Your task to perform on an android device: delete a single message in the gmail app Image 0: 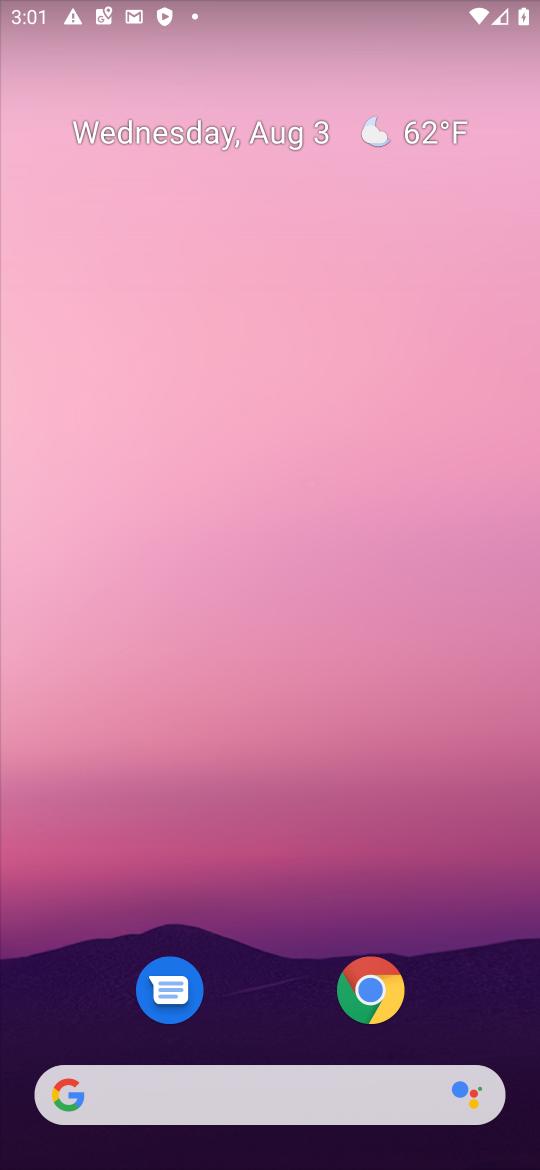
Step 0: drag from (234, 899) to (434, 3)
Your task to perform on an android device: delete a single message in the gmail app Image 1: 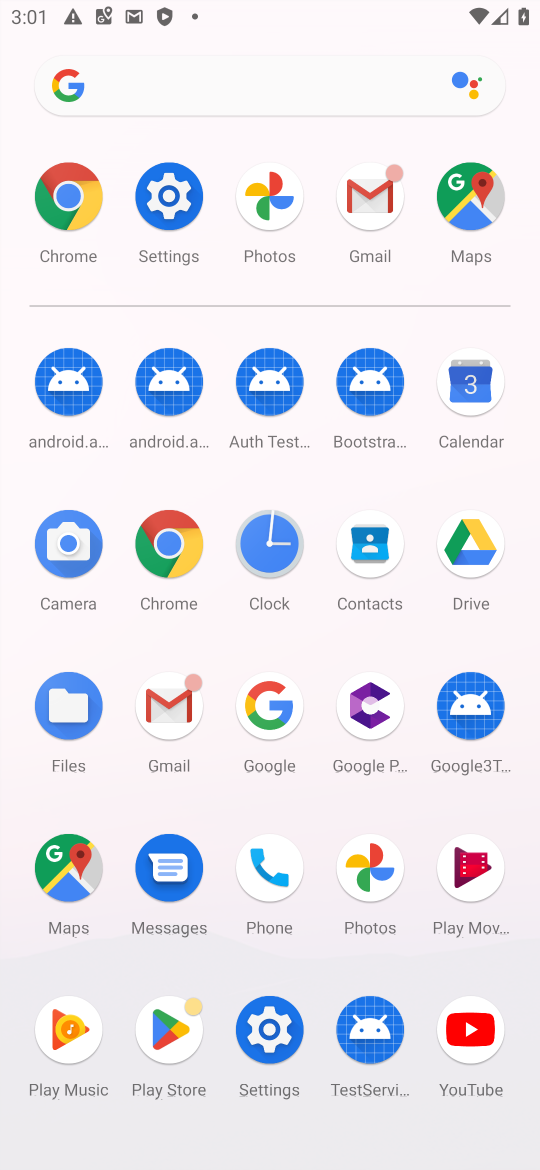
Step 1: click (176, 678)
Your task to perform on an android device: delete a single message in the gmail app Image 2: 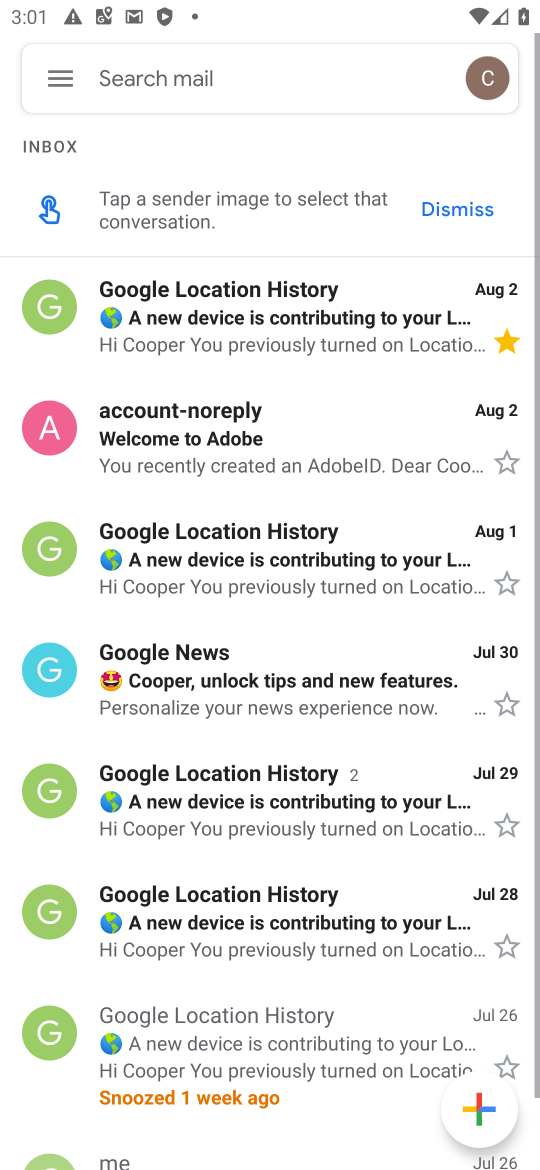
Step 2: click (208, 296)
Your task to perform on an android device: delete a single message in the gmail app Image 3: 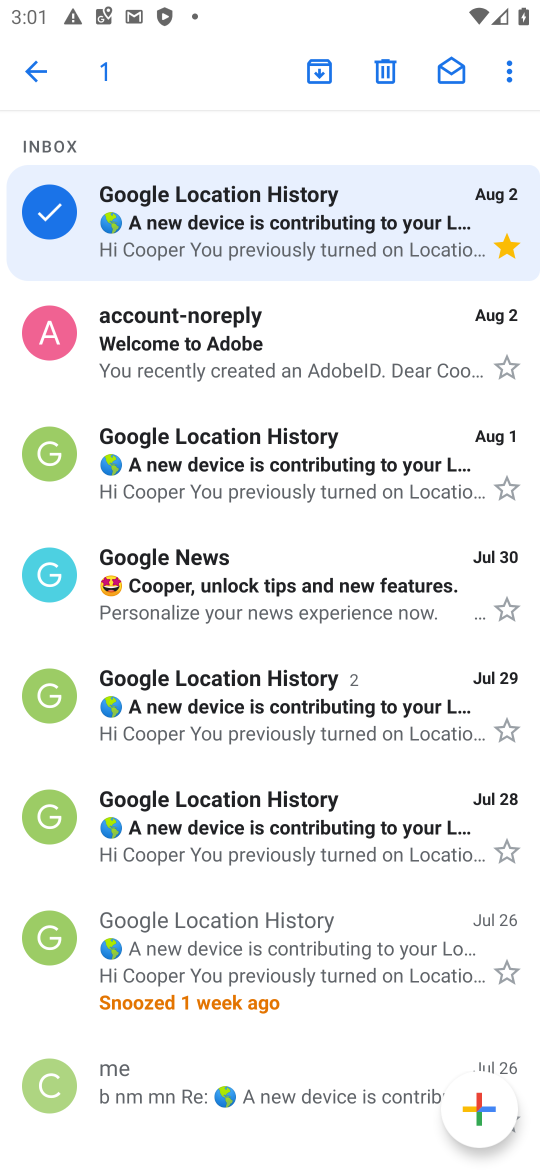
Step 3: click (385, 70)
Your task to perform on an android device: delete a single message in the gmail app Image 4: 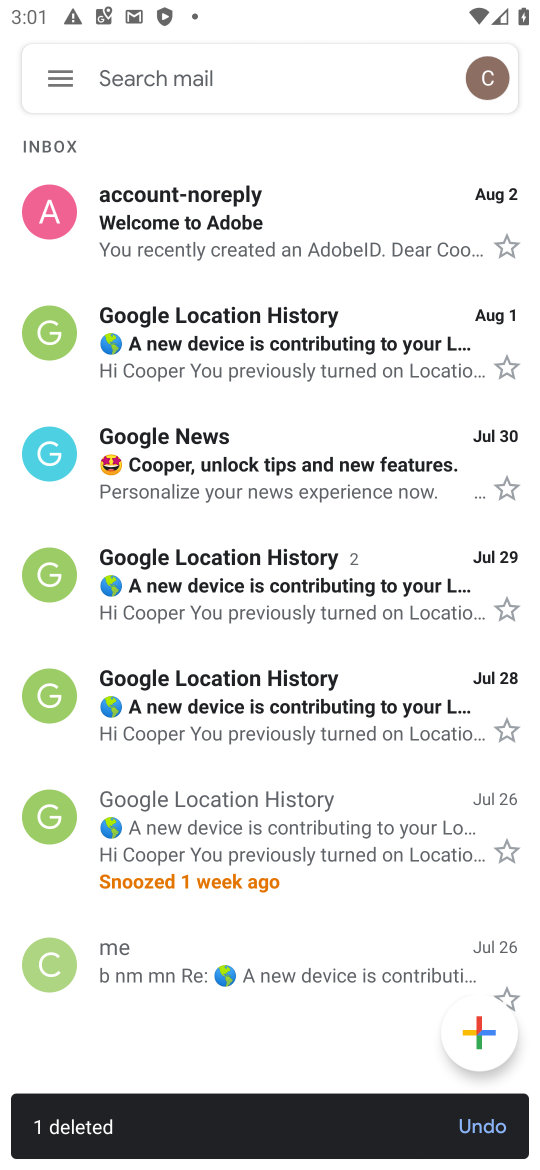
Step 4: task complete